Your task to perform on an android device: Go to privacy settings Image 0: 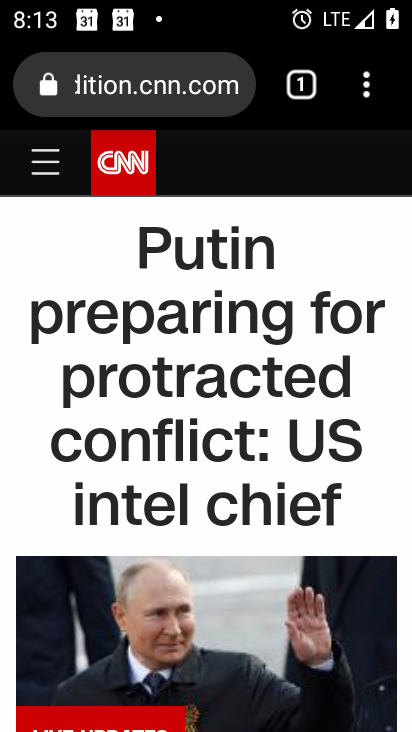
Step 0: press home button
Your task to perform on an android device: Go to privacy settings Image 1: 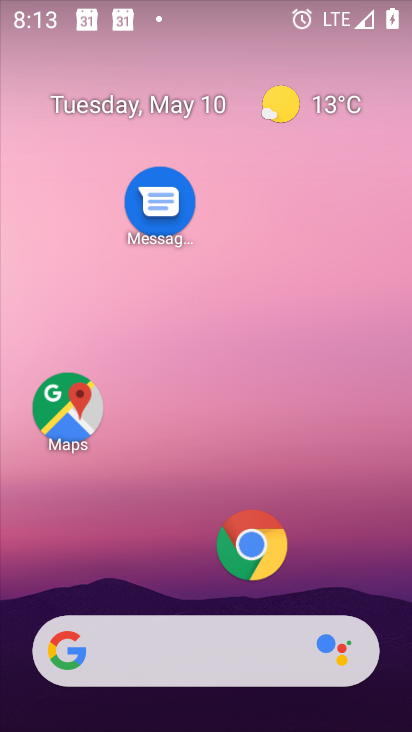
Step 1: drag from (208, 581) to (255, 26)
Your task to perform on an android device: Go to privacy settings Image 2: 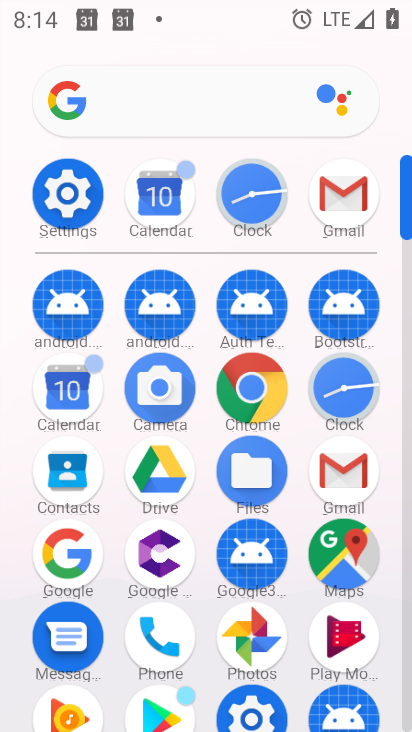
Step 2: click (68, 189)
Your task to perform on an android device: Go to privacy settings Image 3: 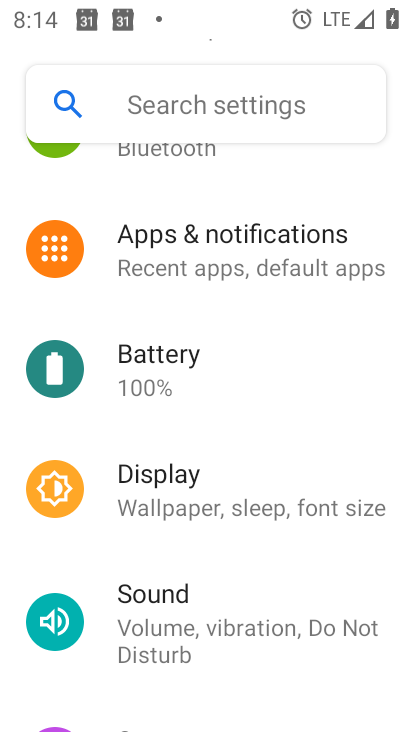
Step 3: drag from (258, 598) to (251, 4)
Your task to perform on an android device: Go to privacy settings Image 4: 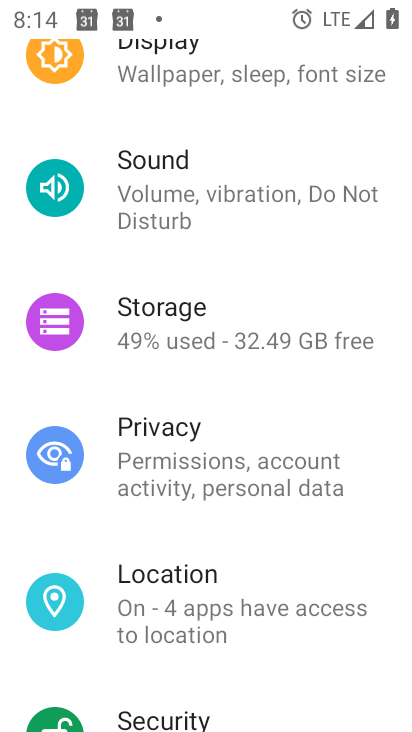
Step 4: click (176, 424)
Your task to perform on an android device: Go to privacy settings Image 5: 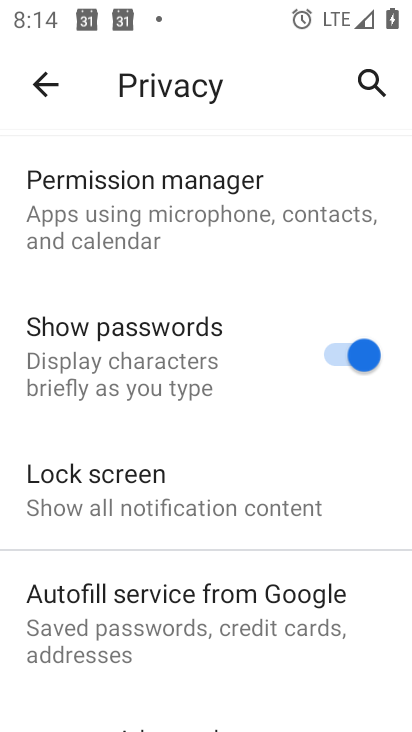
Step 5: drag from (197, 643) to (193, 234)
Your task to perform on an android device: Go to privacy settings Image 6: 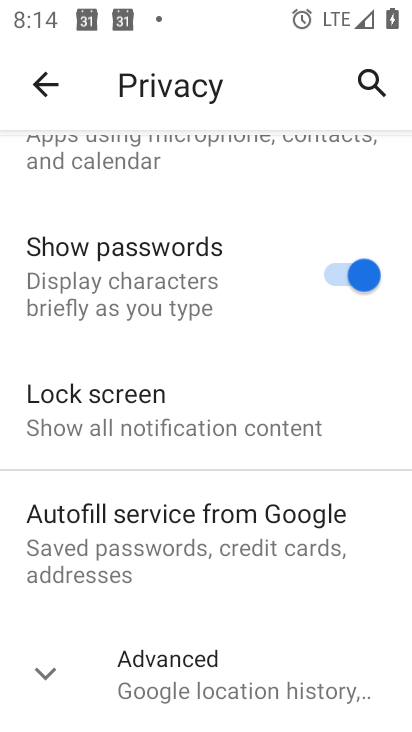
Step 6: click (41, 669)
Your task to perform on an android device: Go to privacy settings Image 7: 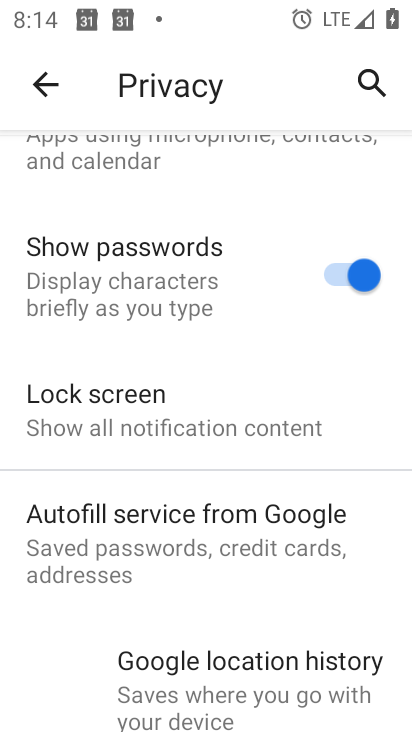
Step 7: task complete